Your task to perform on an android device: See recent photos Image 0: 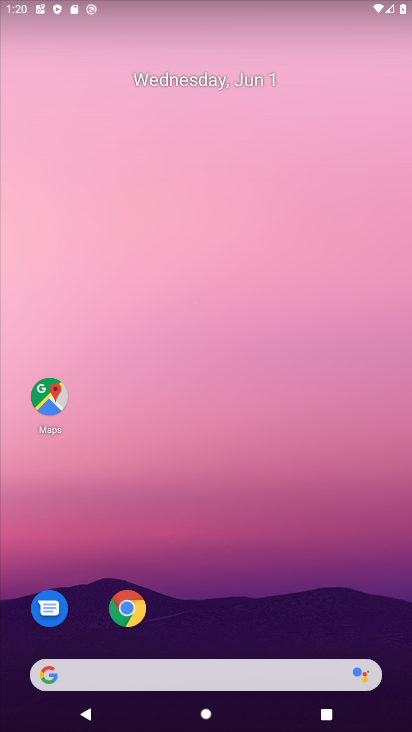
Step 0: drag from (182, 625) to (233, 178)
Your task to perform on an android device: See recent photos Image 1: 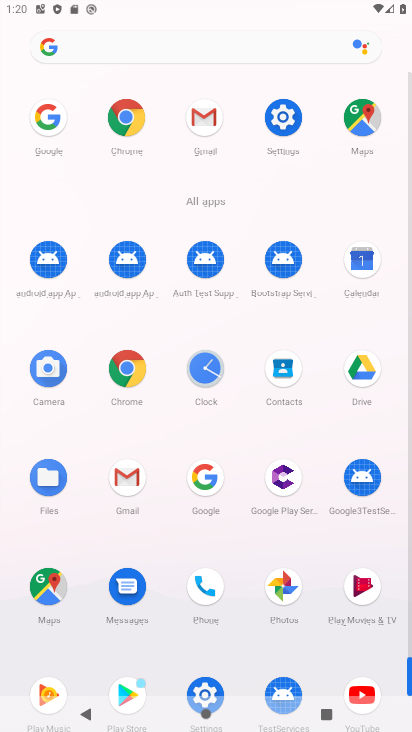
Step 1: click (284, 587)
Your task to perform on an android device: See recent photos Image 2: 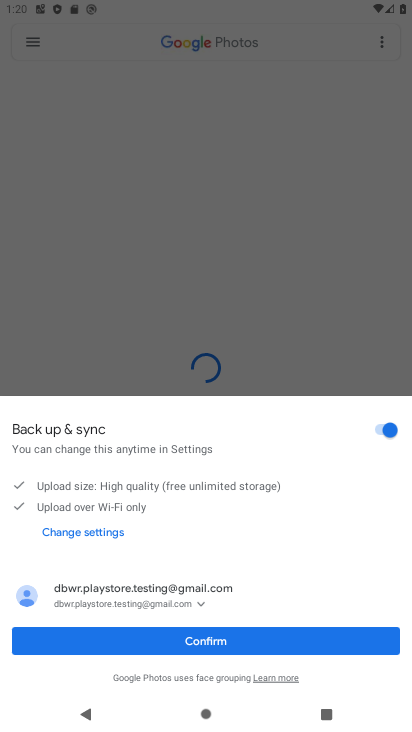
Step 2: click (189, 647)
Your task to perform on an android device: See recent photos Image 3: 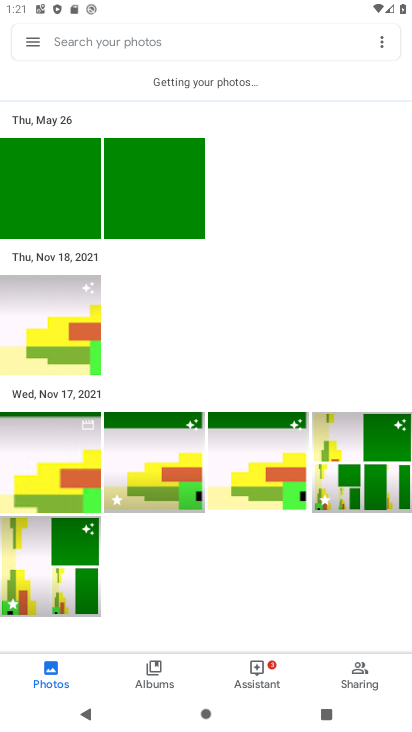
Step 3: task complete